Your task to perform on an android device: change notifications settings Image 0: 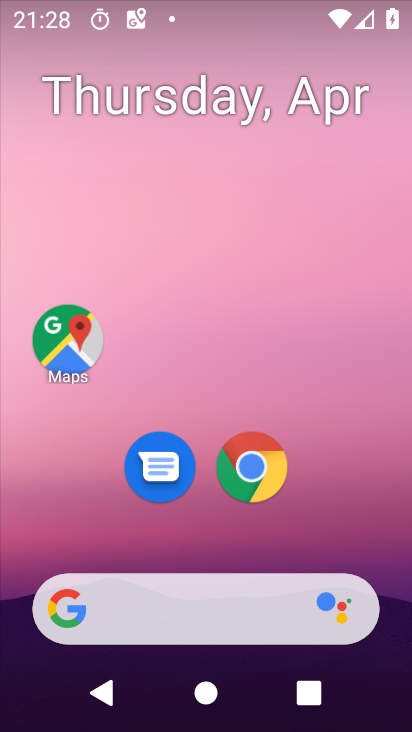
Step 0: drag from (208, 553) to (333, 450)
Your task to perform on an android device: change notifications settings Image 1: 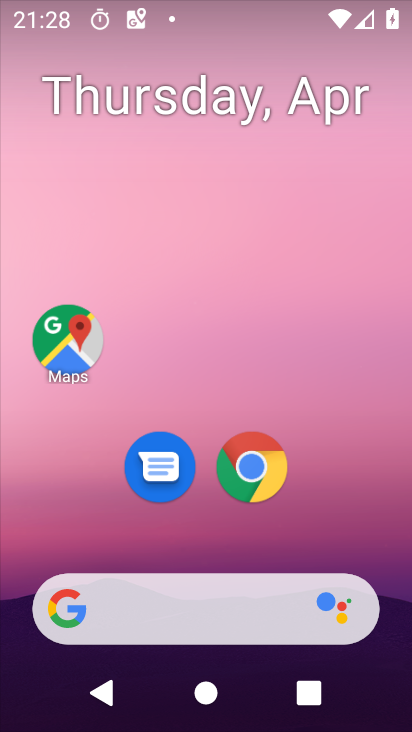
Step 1: drag from (205, 559) to (235, 5)
Your task to perform on an android device: change notifications settings Image 2: 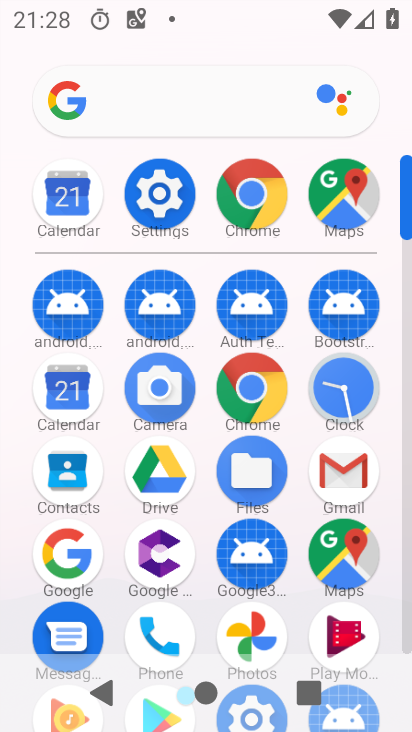
Step 2: click (173, 195)
Your task to perform on an android device: change notifications settings Image 3: 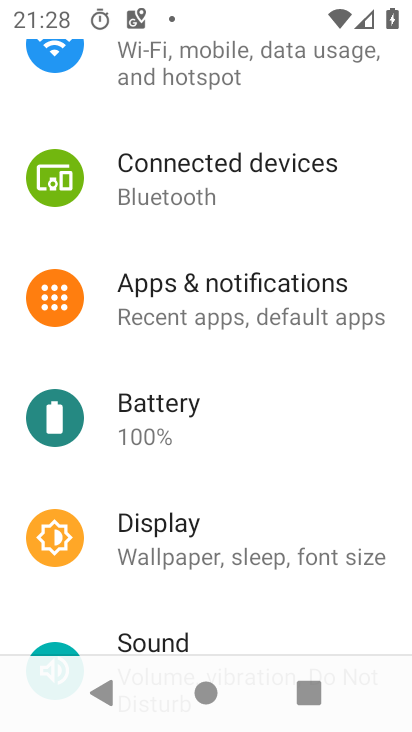
Step 3: click (198, 311)
Your task to perform on an android device: change notifications settings Image 4: 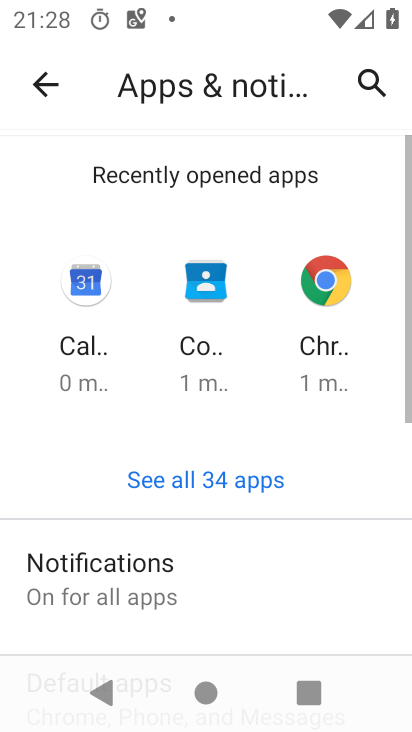
Step 4: click (166, 577)
Your task to perform on an android device: change notifications settings Image 5: 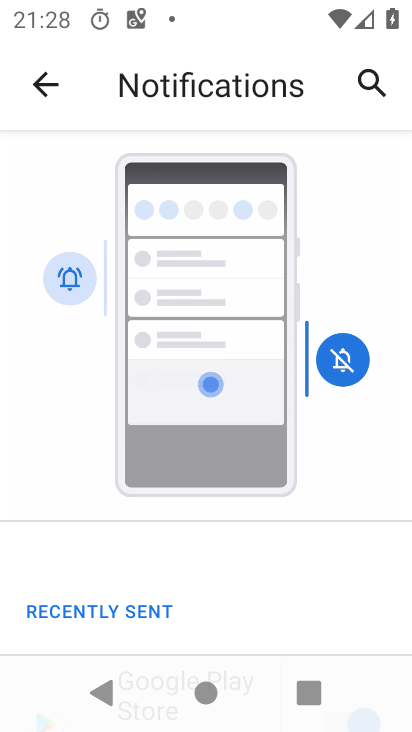
Step 5: task complete